Your task to perform on an android device: Check the news Image 0: 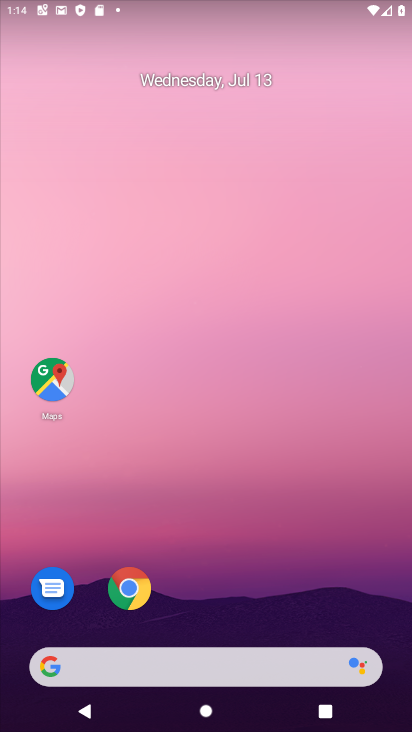
Step 0: click (126, 602)
Your task to perform on an android device: Check the news Image 1: 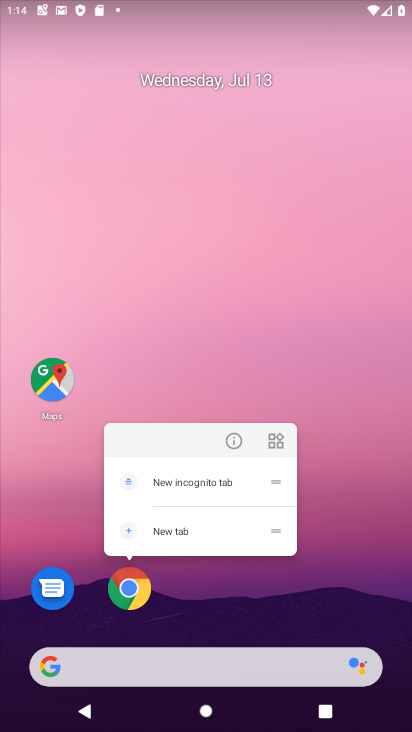
Step 1: click (126, 602)
Your task to perform on an android device: Check the news Image 2: 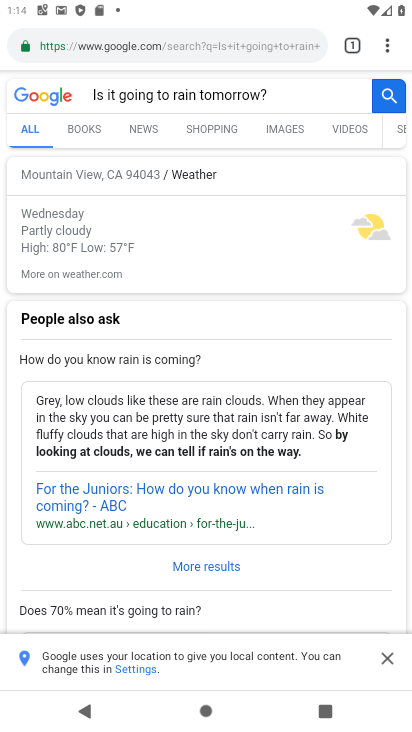
Step 2: click (229, 50)
Your task to perform on an android device: Check the news Image 3: 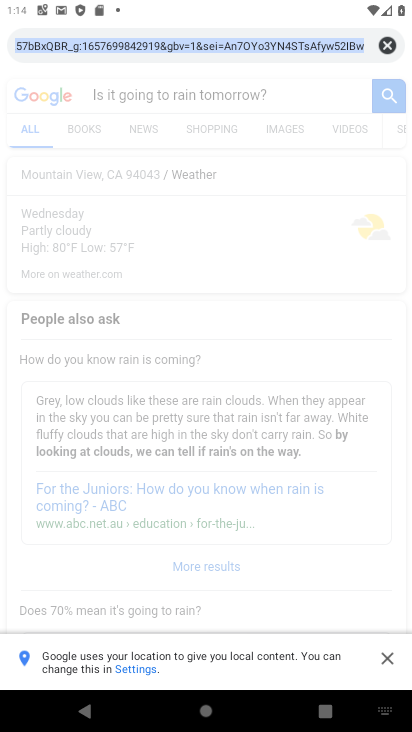
Step 3: click (390, 46)
Your task to perform on an android device: Check the news Image 4: 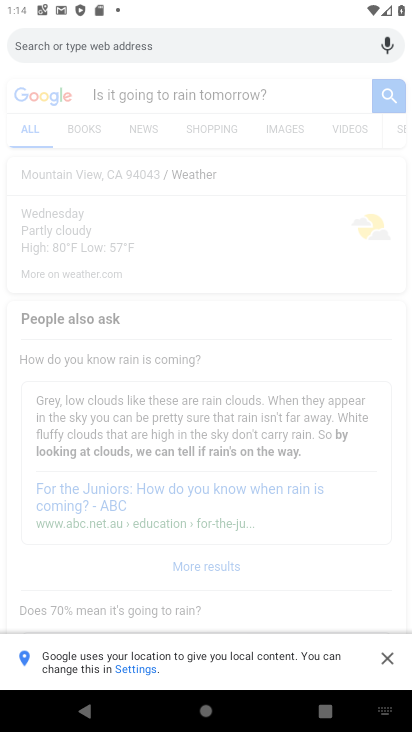
Step 4: type " news"
Your task to perform on an android device: Check the news Image 5: 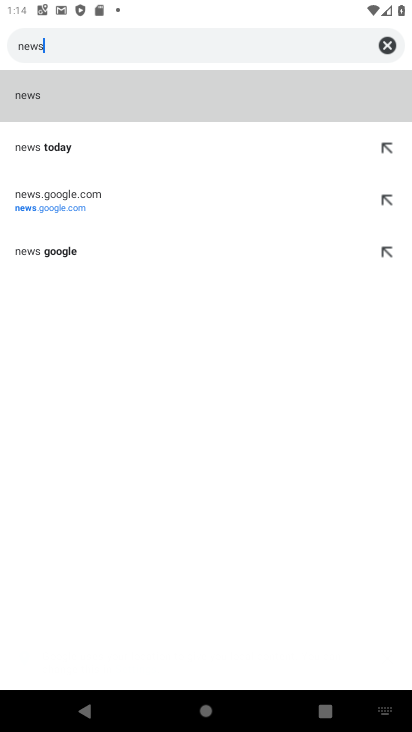
Step 5: type ""
Your task to perform on an android device: Check the news Image 6: 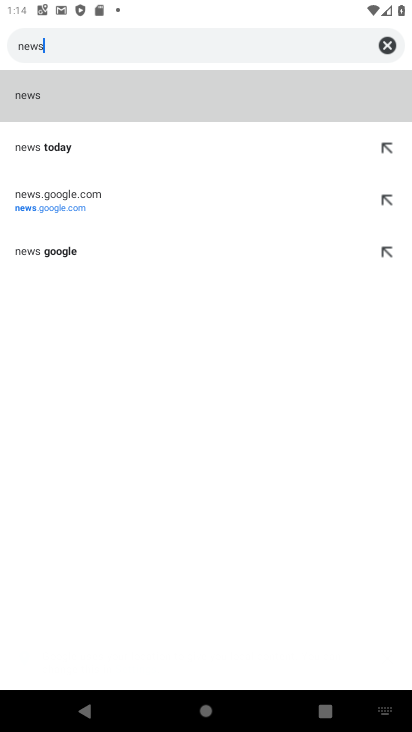
Step 6: click (59, 81)
Your task to perform on an android device: Check the news Image 7: 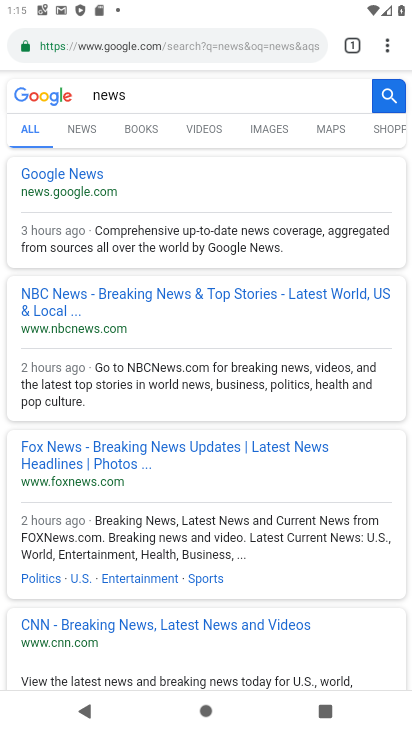
Step 7: task complete